Your task to perform on an android device: What's on my calendar today? Image 0: 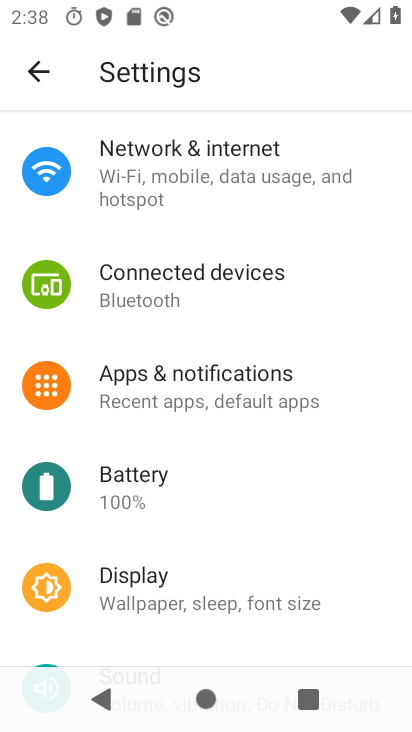
Step 0: press home button
Your task to perform on an android device: What's on my calendar today? Image 1: 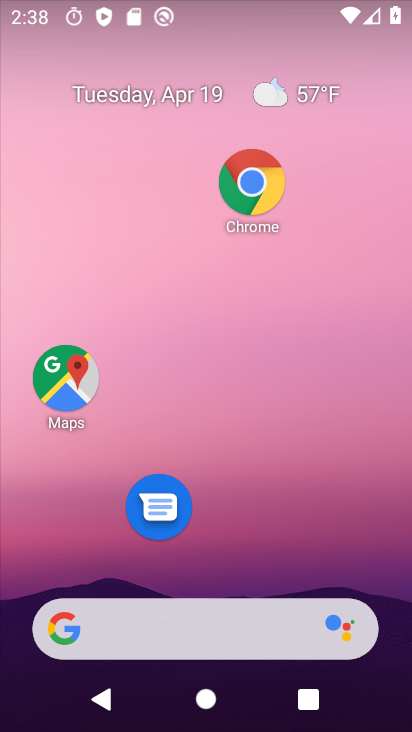
Step 1: drag from (301, 530) to (326, 235)
Your task to perform on an android device: What's on my calendar today? Image 2: 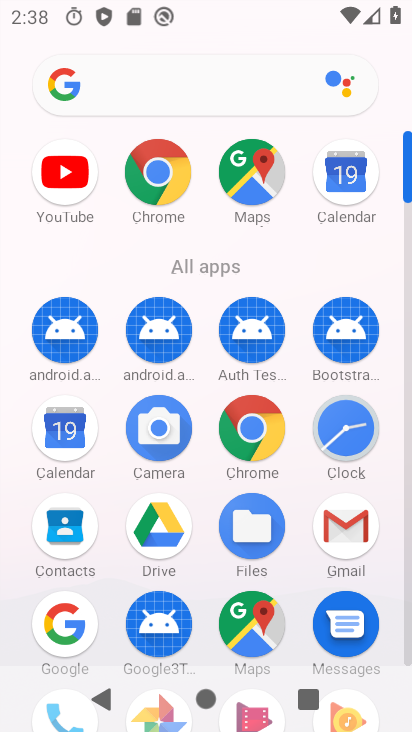
Step 2: click (86, 444)
Your task to perform on an android device: What's on my calendar today? Image 3: 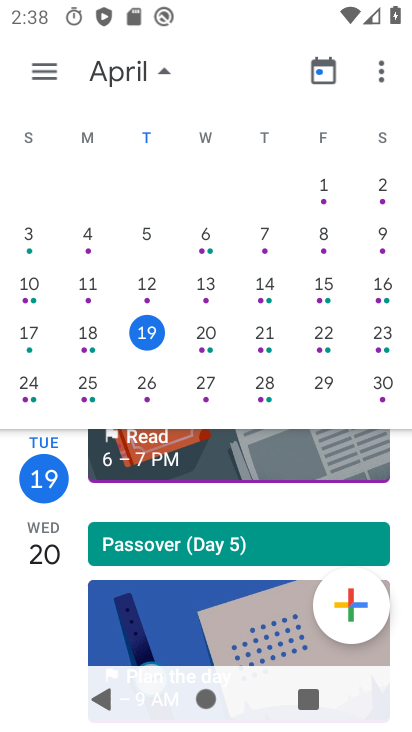
Step 3: task complete